Your task to perform on an android device: Open Youtube and go to "Your channel" Image 0: 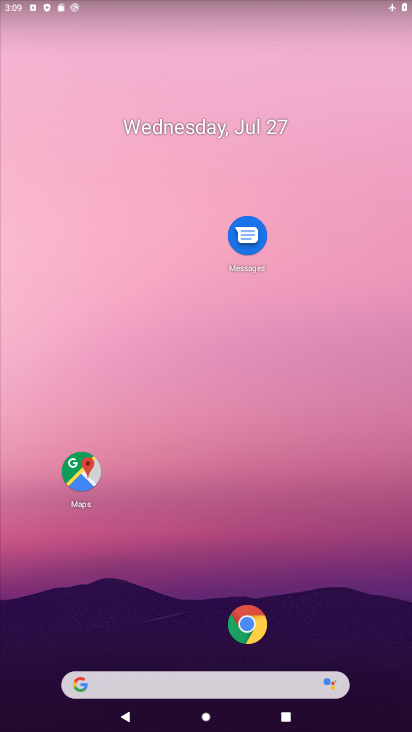
Step 0: drag from (138, 634) to (232, 204)
Your task to perform on an android device: Open Youtube and go to "Your channel" Image 1: 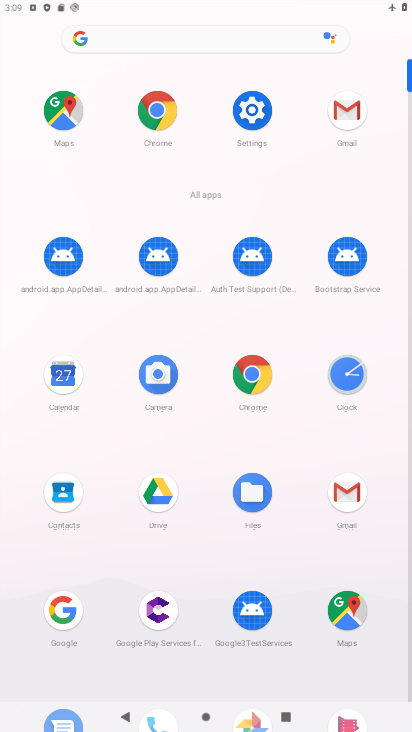
Step 1: drag from (119, 560) to (129, 194)
Your task to perform on an android device: Open Youtube and go to "Your channel" Image 2: 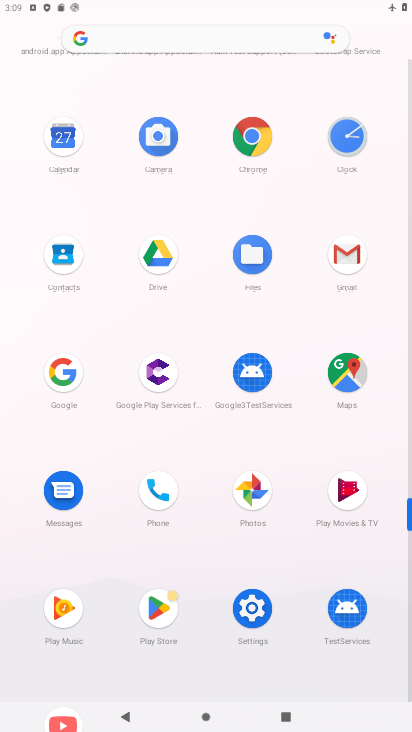
Step 2: drag from (101, 687) to (218, 287)
Your task to perform on an android device: Open Youtube and go to "Your channel" Image 3: 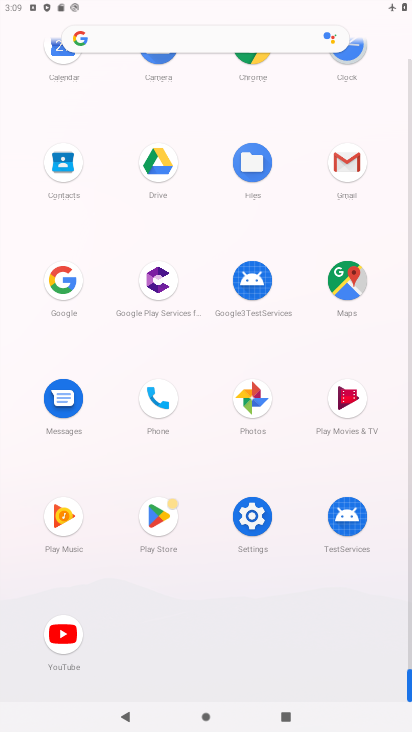
Step 3: click (68, 631)
Your task to perform on an android device: Open Youtube and go to "Your channel" Image 4: 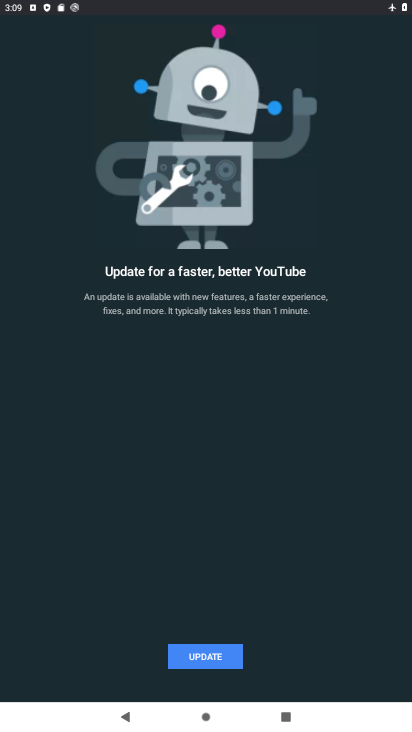
Step 4: click (195, 642)
Your task to perform on an android device: Open Youtube and go to "Your channel" Image 5: 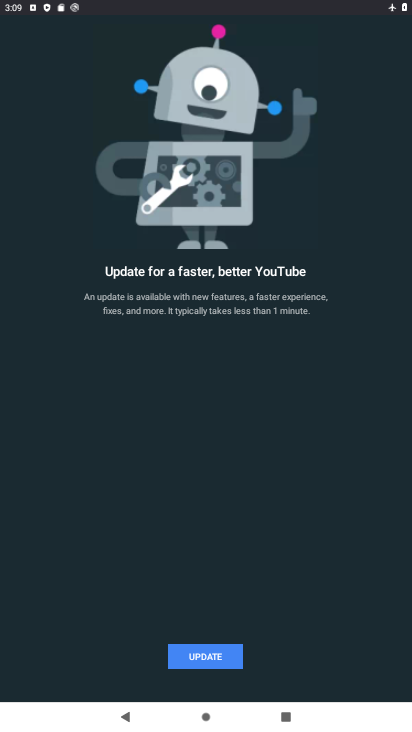
Step 5: click (209, 657)
Your task to perform on an android device: Open Youtube and go to "Your channel" Image 6: 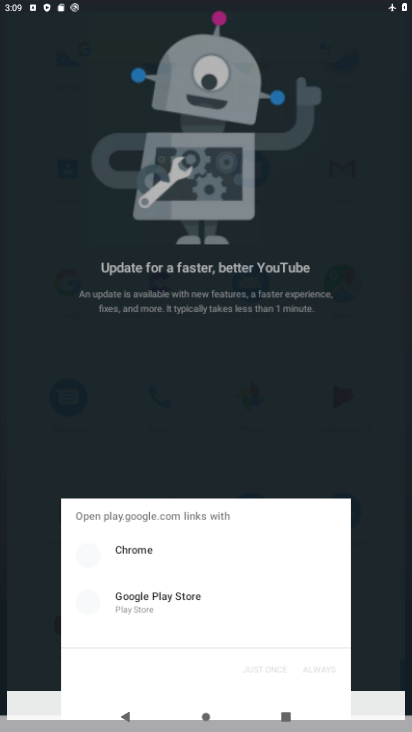
Step 6: click (209, 657)
Your task to perform on an android device: Open Youtube and go to "Your channel" Image 7: 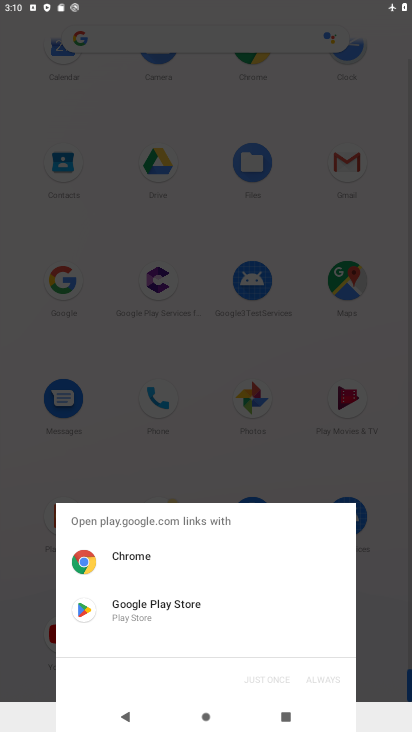
Step 7: click (193, 604)
Your task to perform on an android device: Open Youtube and go to "Your channel" Image 8: 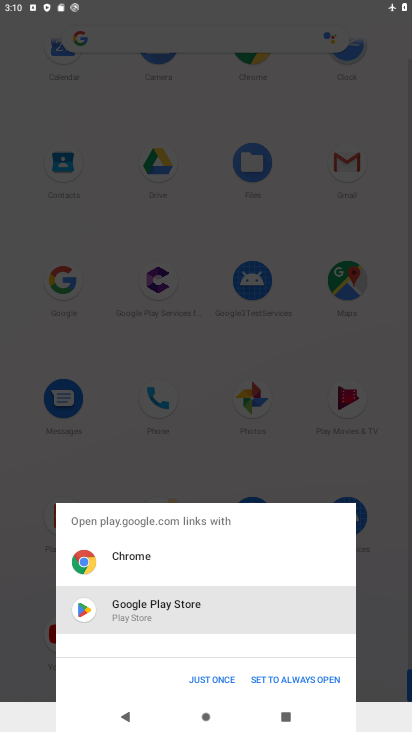
Step 8: click (215, 685)
Your task to perform on an android device: Open Youtube and go to "Your channel" Image 9: 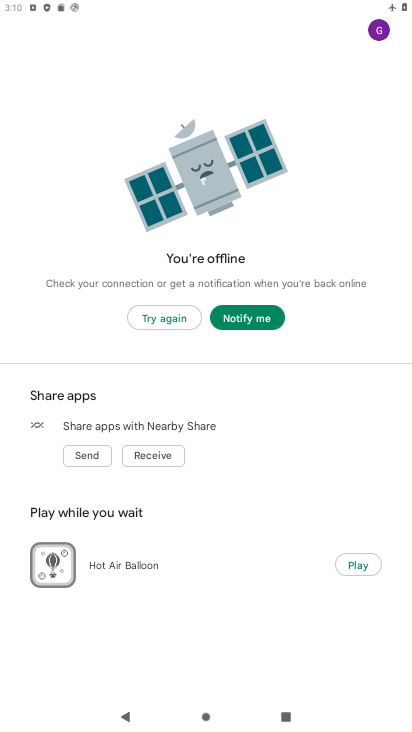
Step 9: drag from (158, 12) to (138, 662)
Your task to perform on an android device: Open Youtube and go to "Your channel" Image 10: 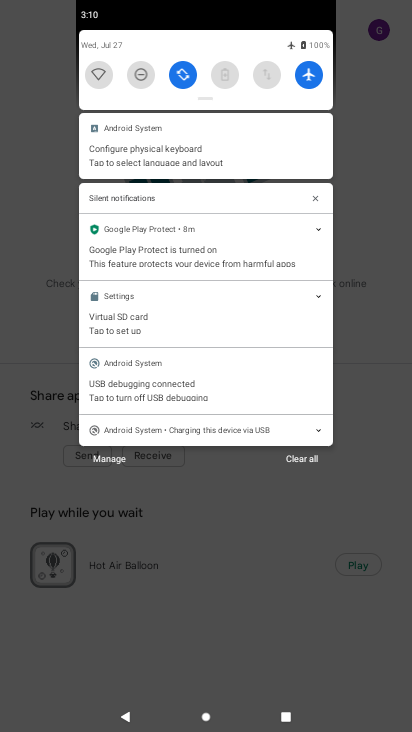
Step 10: click (311, 71)
Your task to perform on an android device: Open Youtube and go to "Your channel" Image 11: 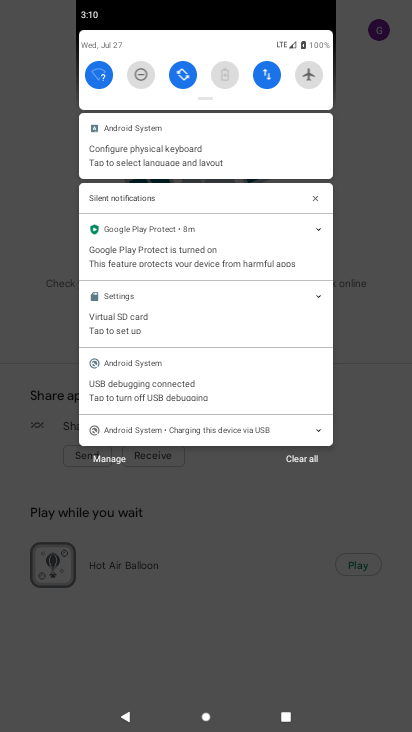
Step 11: task complete